Your task to perform on an android device: set the stopwatch Image 0: 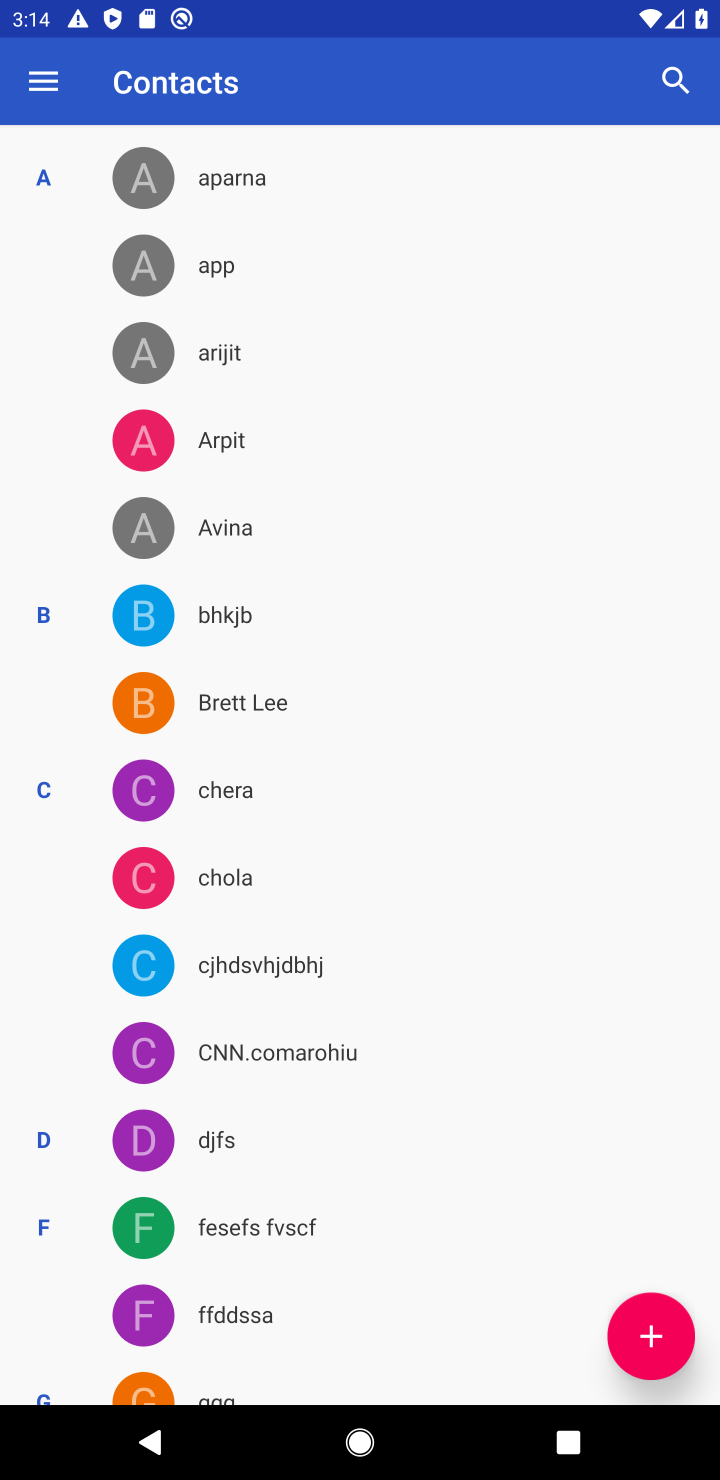
Step 0: press home button
Your task to perform on an android device: set the stopwatch Image 1: 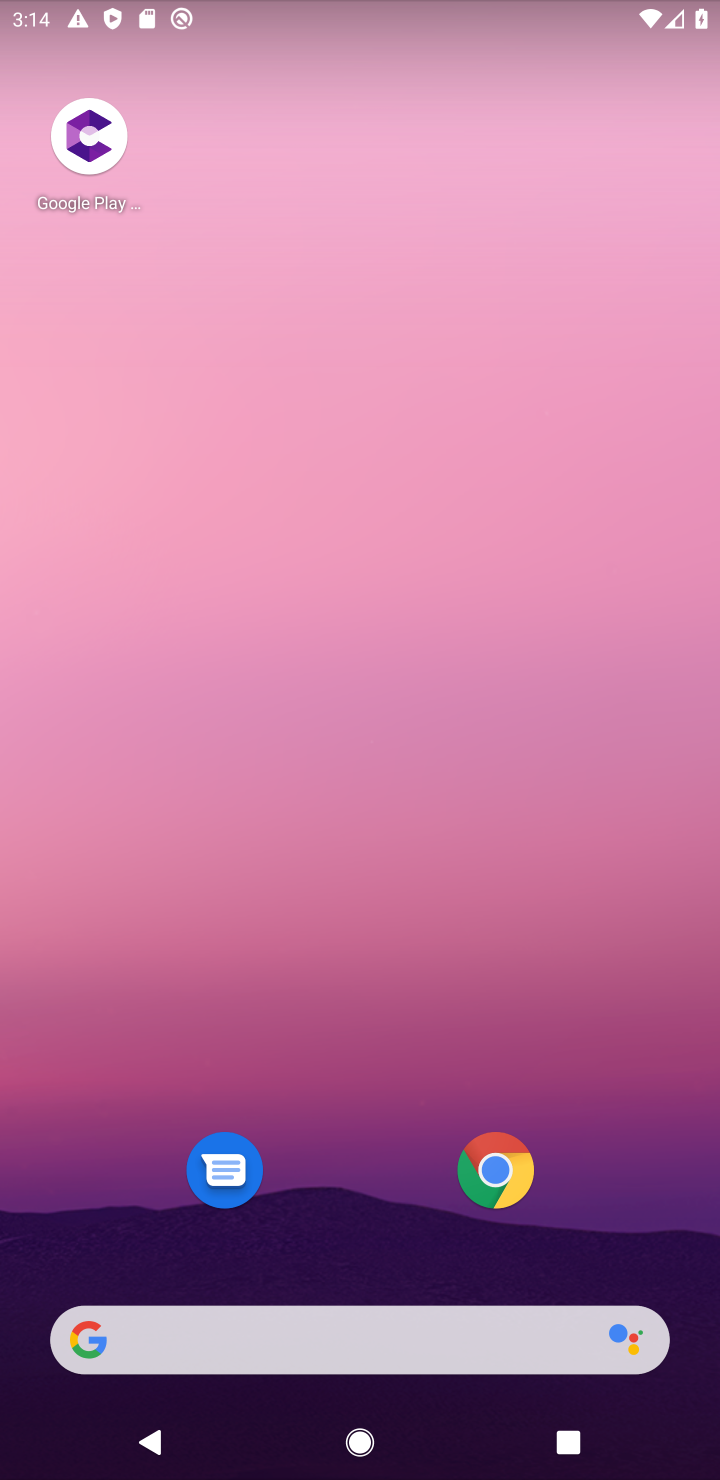
Step 1: drag from (28, 1408) to (422, 454)
Your task to perform on an android device: set the stopwatch Image 2: 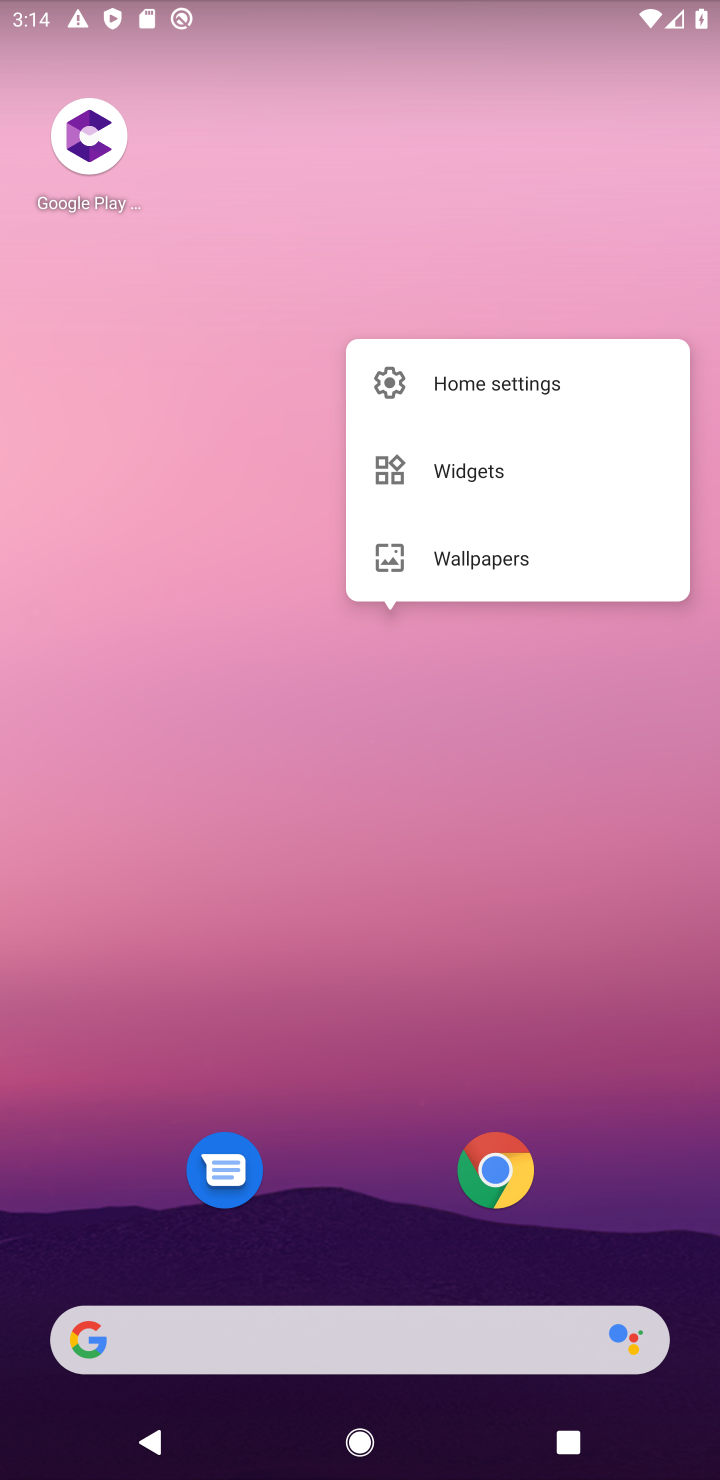
Step 2: drag from (64, 1433) to (105, 461)
Your task to perform on an android device: set the stopwatch Image 3: 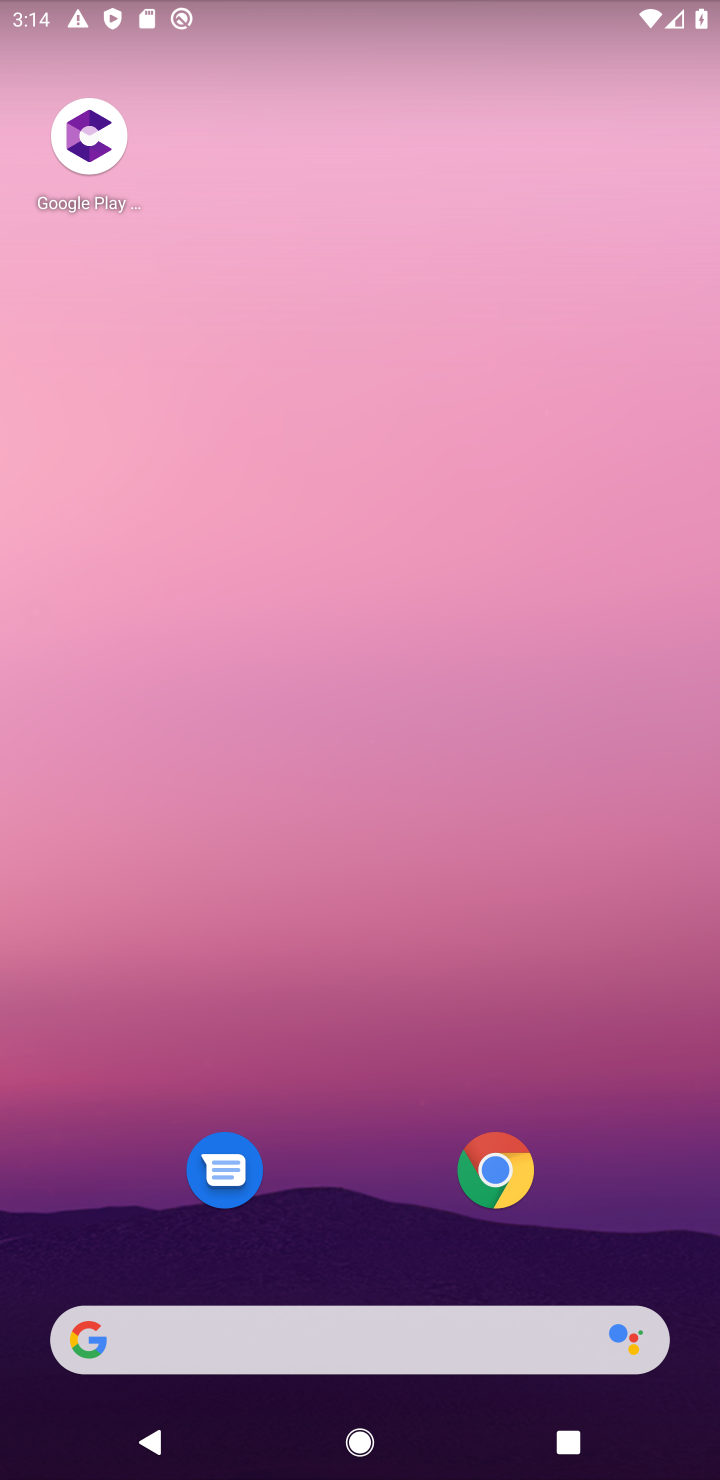
Step 3: drag from (59, 1430) to (276, 353)
Your task to perform on an android device: set the stopwatch Image 4: 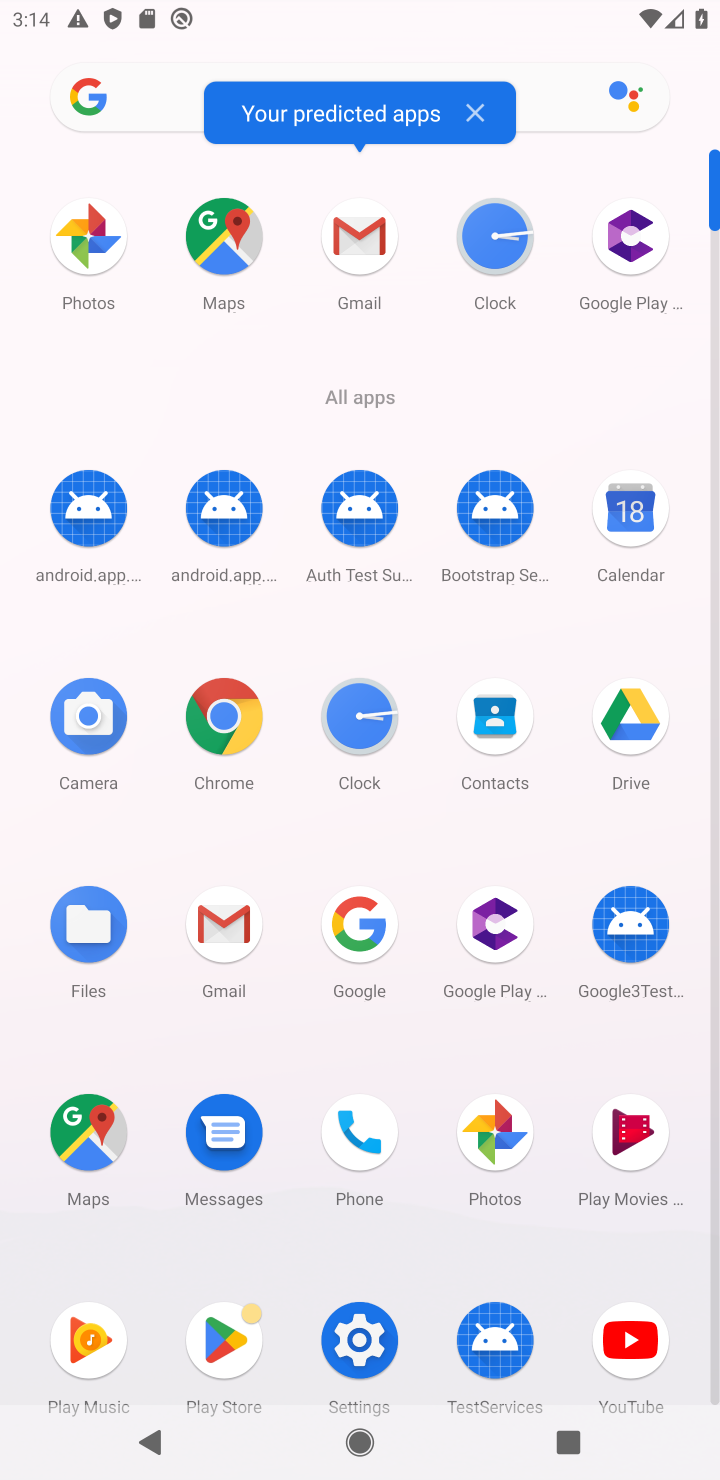
Step 4: click (532, 260)
Your task to perform on an android device: set the stopwatch Image 5: 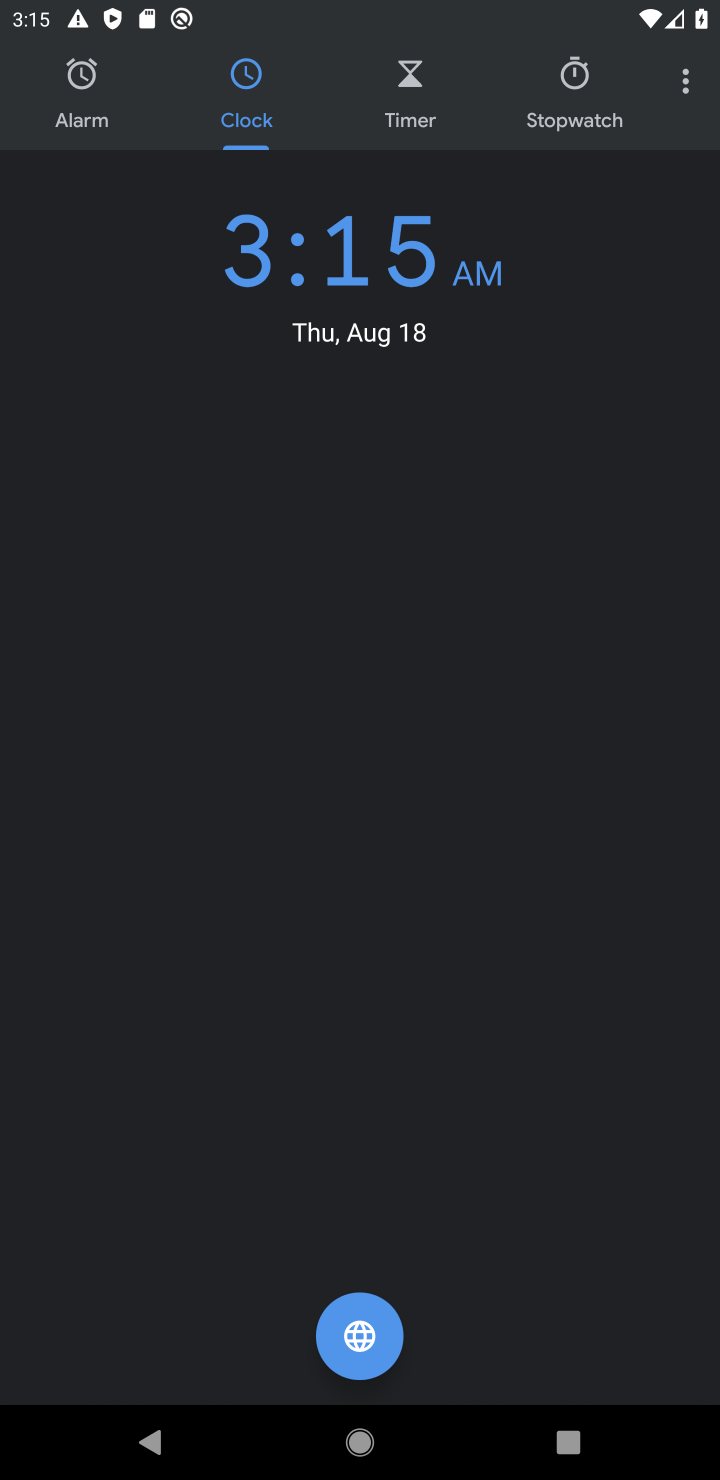
Step 5: click (565, 106)
Your task to perform on an android device: set the stopwatch Image 6: 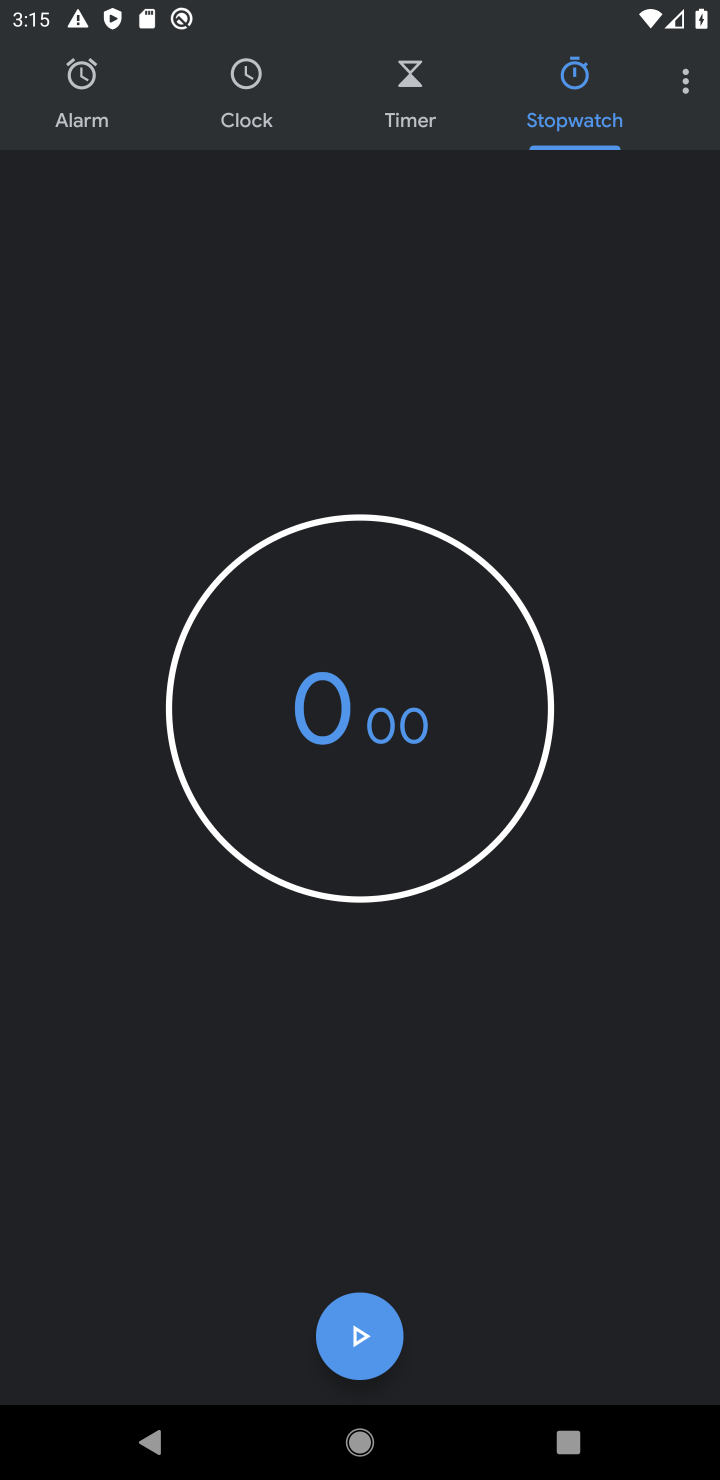
Step 6: click (304, 736)
Your task to perform on an android device: set the stopwatch Image 7: 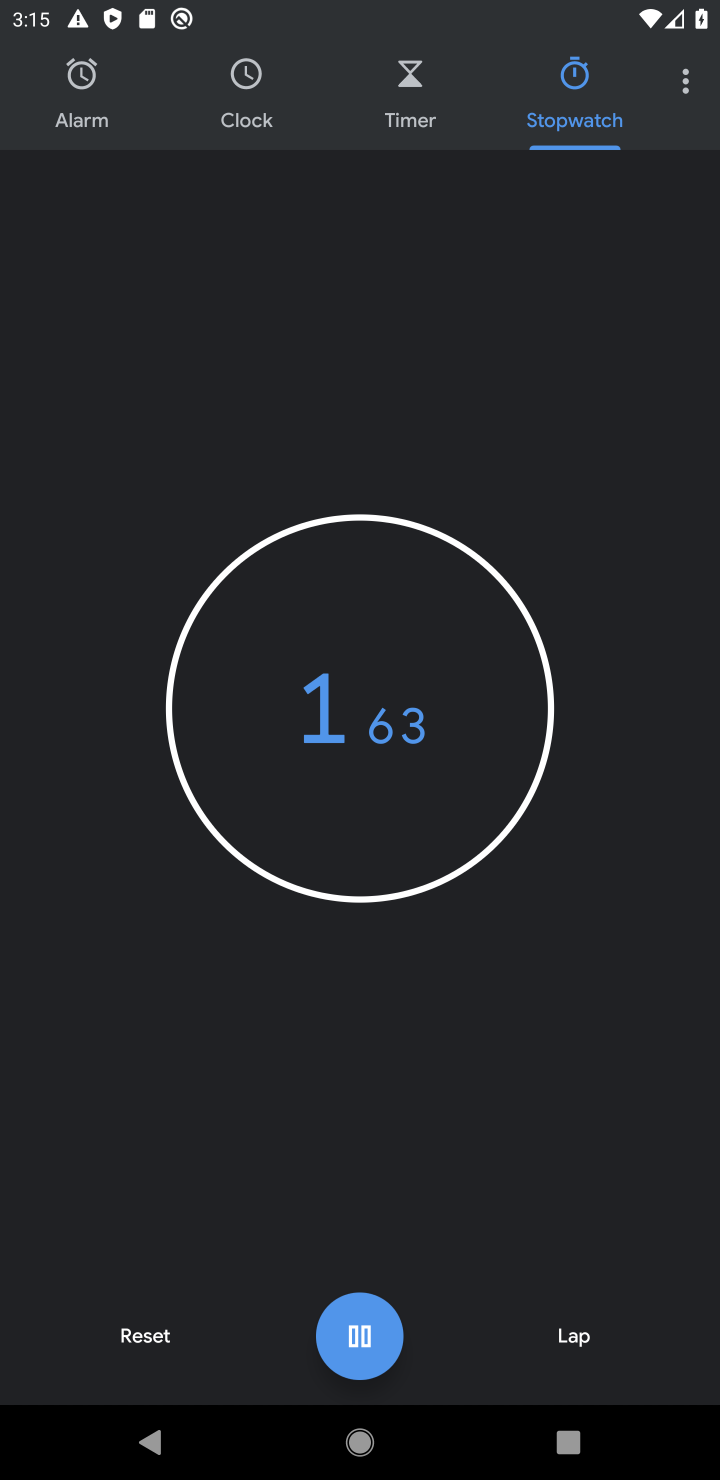
Step 7: click (304, 736)
Your task to perform on an android device: set the stopwatch Image 8: 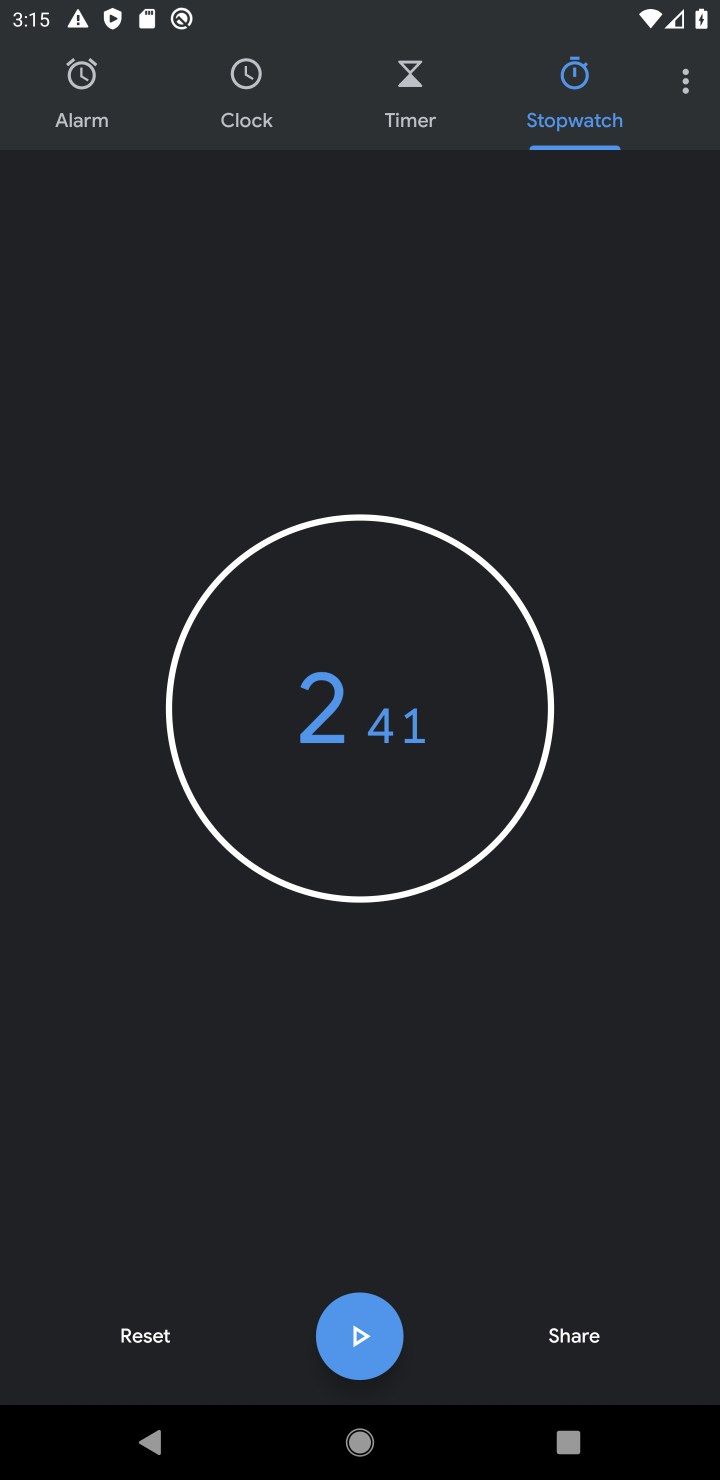
Step 8: task complete